Your task to perform on an android device: create a new album in the google photos Image 0: 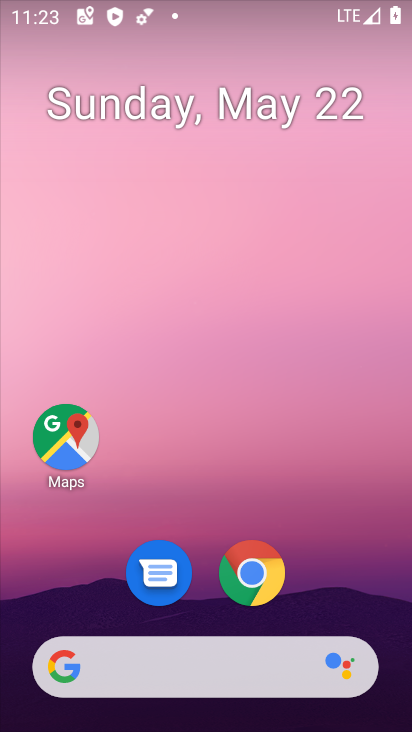
Step 0: drag from (321, 576) to (319, 6)
Your task to perform on an android device: create a new album in the google photos Image 1: 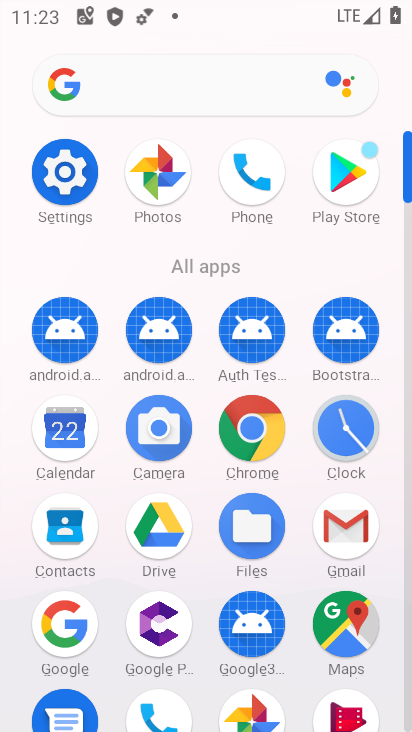
Step 1: drag from (321, 472) to (291, 64)
Your task to perform on an android device: create a new album in the google photos Image 2: 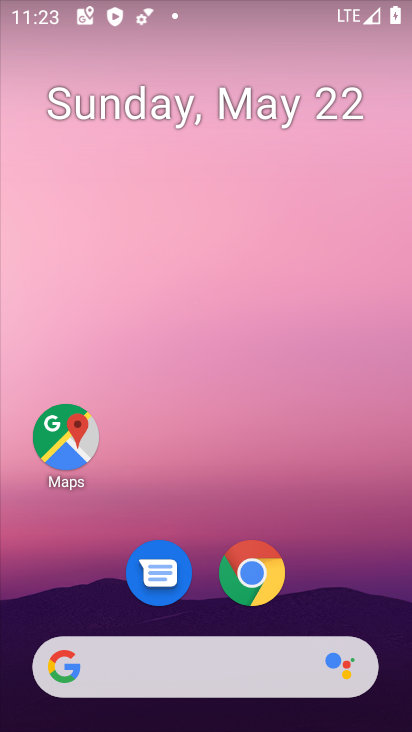
Step 2: drag from (331, 576) to (317, 2)
Your task to perform on an android device: create a new album in the google photos Image 3: 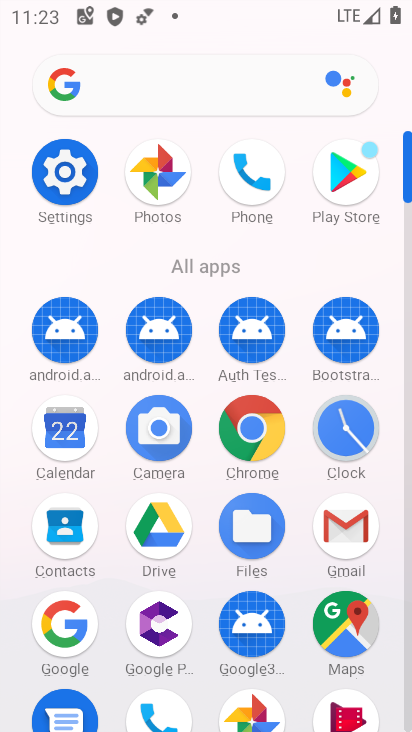
Step 3: click (172, 170)
Your task to perform on an android device: create a new album in the google photos Image 4: 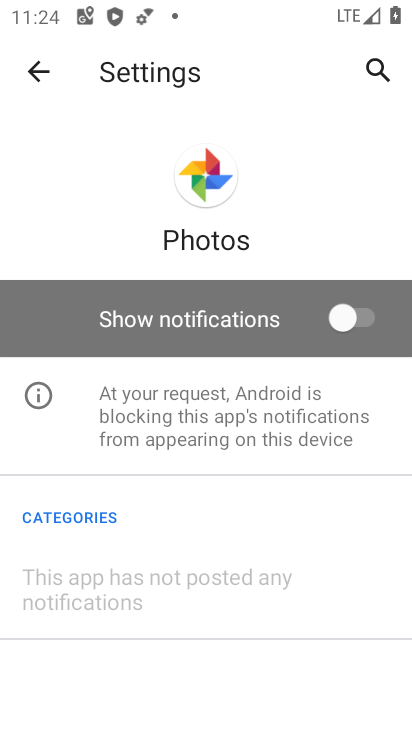
Step 4: click (44, 71)
Your task to perform on an android device: create a new album in the google photos Image 5: 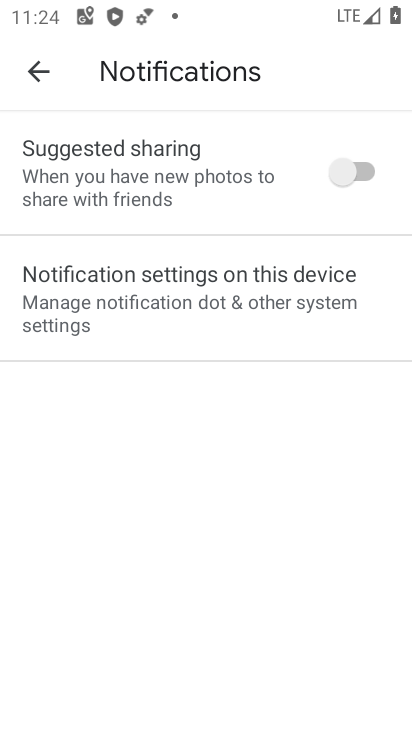
Step 5: click (44, 72)
Your task to perform on an android device: create a new album in the google photos Image 6: 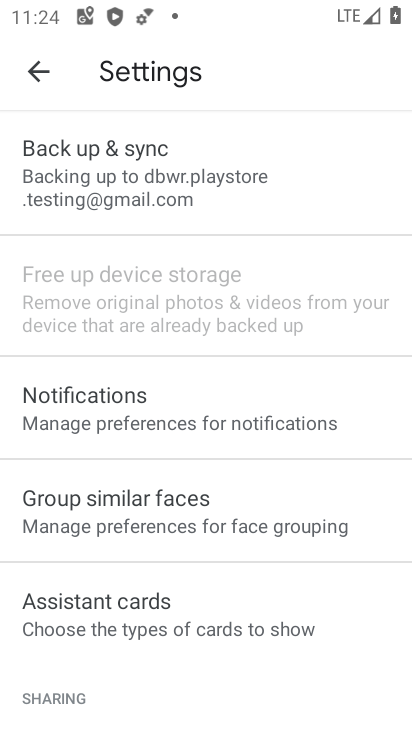
Step 6: click (47, 63)
Your task to perform on an android device: create a new album in the google photos Image 7: 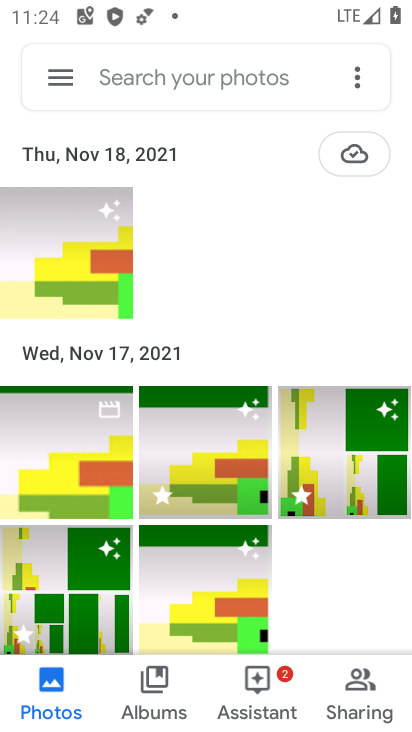
Step 7: click (165, 686)
Your task to perform on an android device: create a new album in the google photos Image 8: 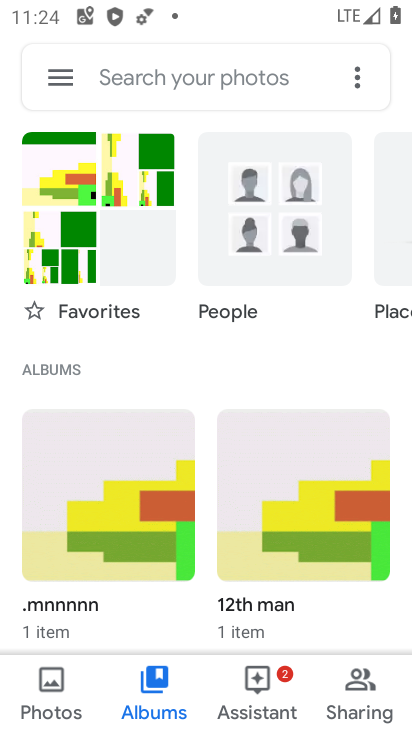
Step 8: drag from (145, 595) to (166, 192)
Your task to perform on an android device: create a new album in the google photos Image 9: 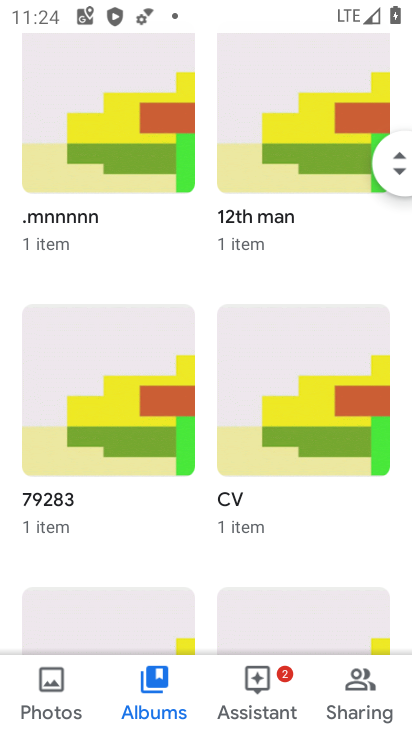
Step 9: drag from (200, 560) to (279, 39)
Your task to perform on an android device: create a new album in the google photos Image 10: 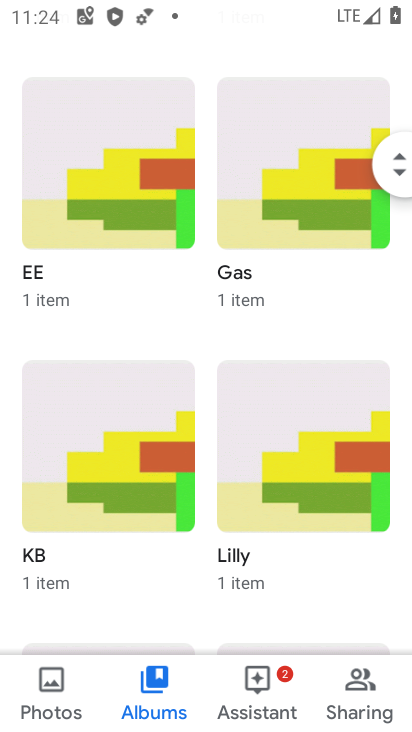
Step 10: drag from (358, 95) to (380, 437)
Your task to perform on an android device: create a new album in the google photos Image 11: 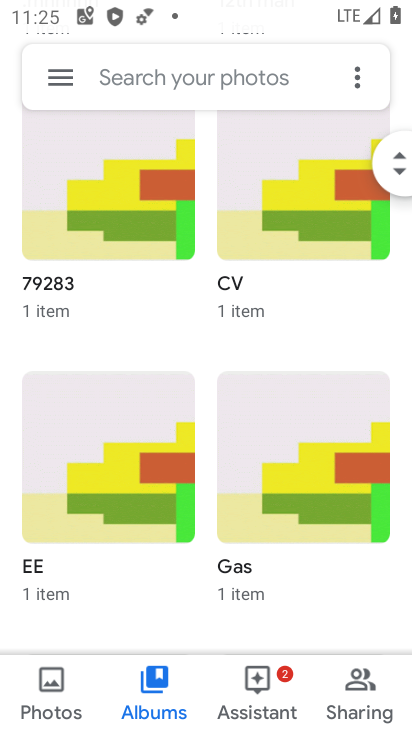
Step 11: click (360, 69)
Your task to perform on an android device: create a new album in the google photos Image 12: 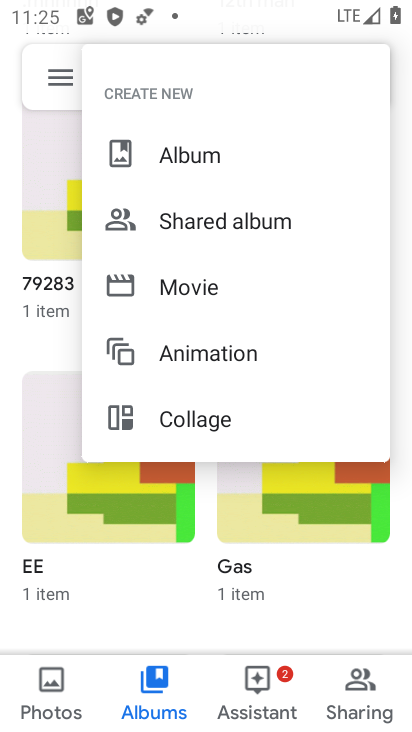
Step 12: click (201, 157)
Your task to perform on an android device: create a new album in the google photos Image 13: 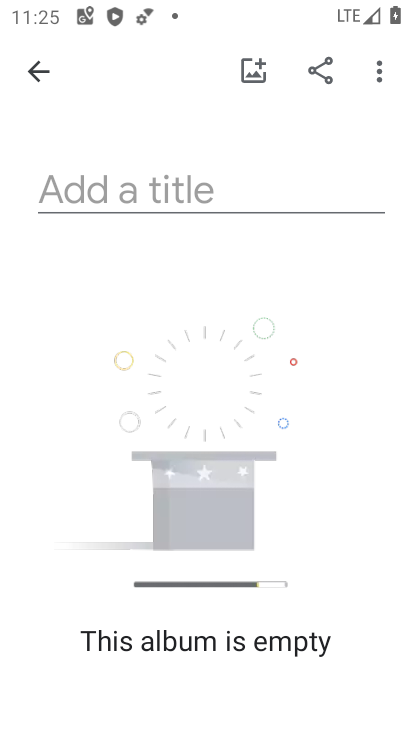
Step 13: click (145, 183)
Your task to perform on an android device: create a new album in the google photos Image 14: 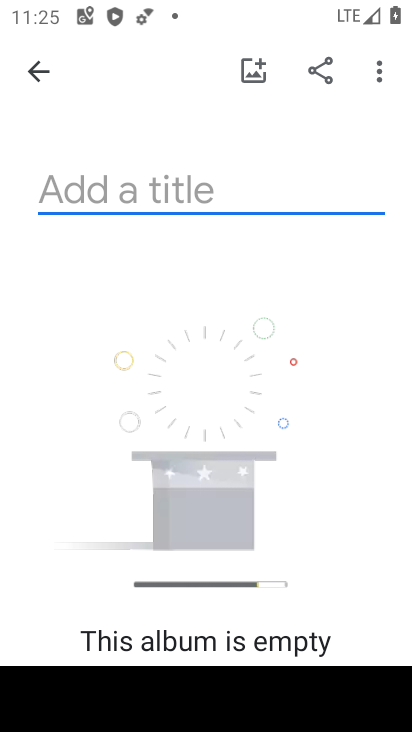
Step 14: type "mkloijko"
Your task to perform on an android device: create a new album in the google photos Image 15: 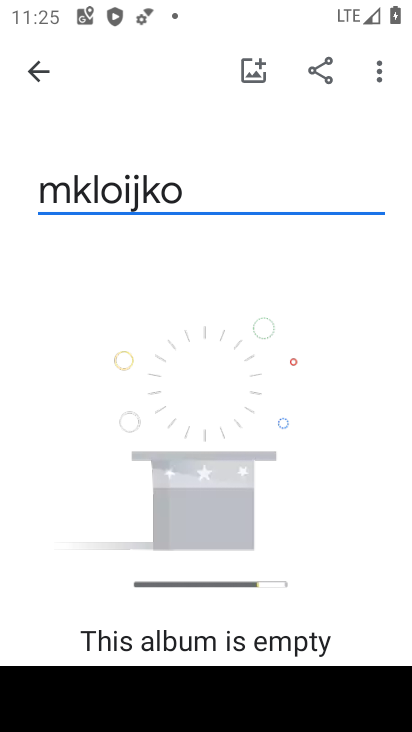
Step 15: click (246, 68)
Your task to perform on an android device: create a new album in the google photos Image 16: 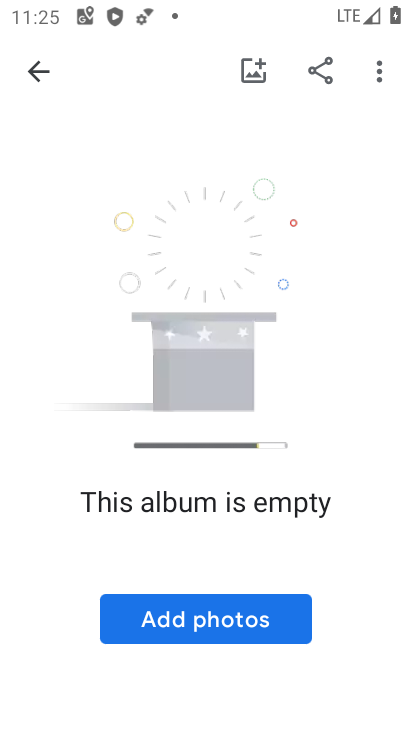
Step 16: click (197, 612)
Your task to perform on an android device: create a new album in the google photos Image 17: 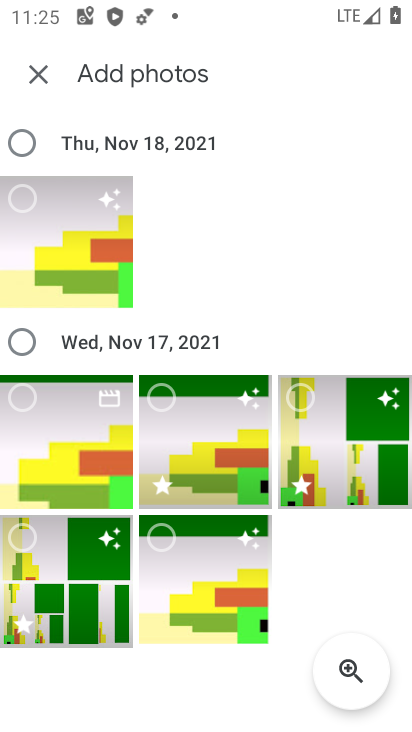
Step 17: task complete